Your task to perform on an android device: turn on wifi Image 0: 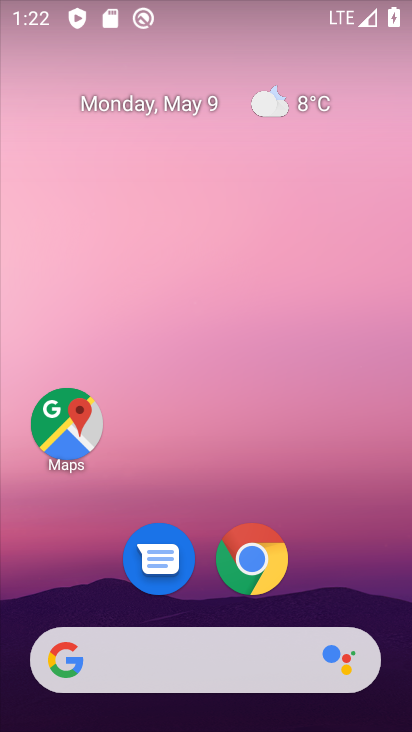
Step 0: drag from (356, 553) to (198, 34)
Your task to perform on an android device: turn on wifi Image 1: 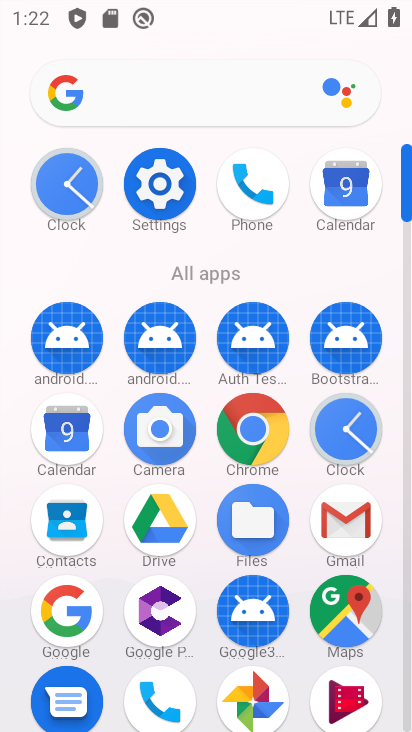
Step 1: click (161, 185)
Your task to perform on an android device: turn on wifi Image 2: 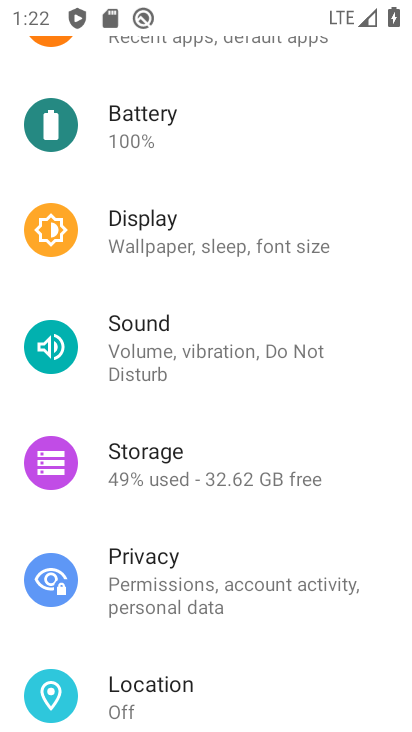
Step 2: drag from (207, 294) to (225, 648)
Your task to perform on an android device: turn on wifi Image 3: 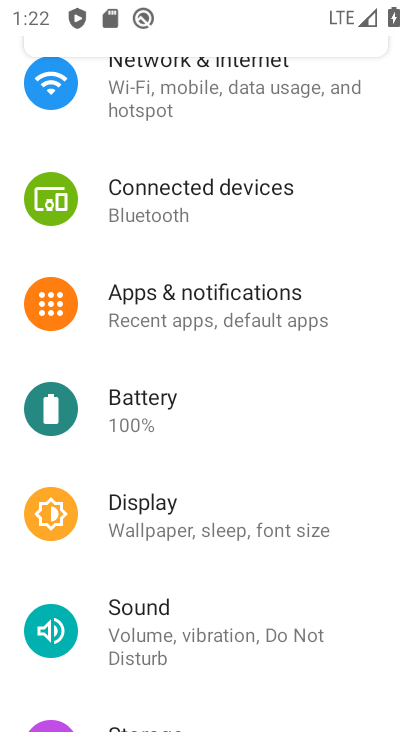
Step 3: drag from (195, 231) to (233, 587)
Your task to perform on an android device: turn on wifi Image 4: 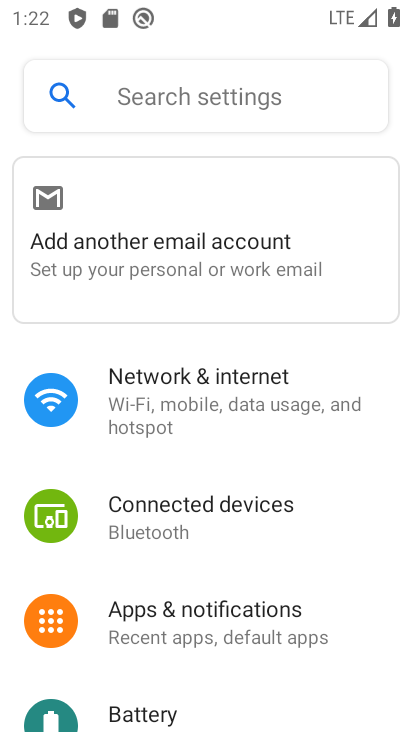
Step 4: click (167, 385)
Your task to perform on an android device: turn on wifi Image 5: 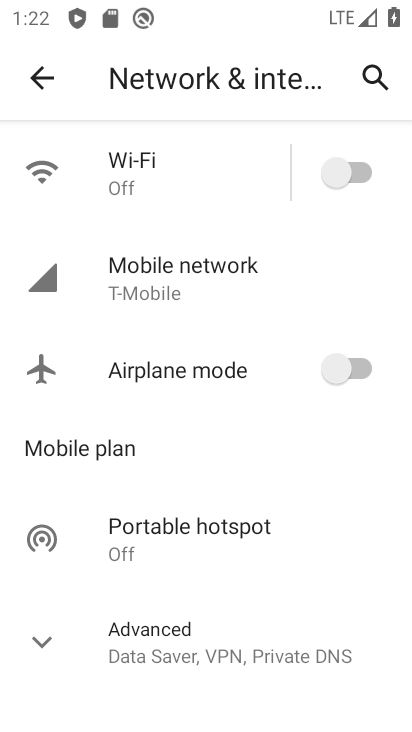
Step 5: click (335, 187)
Your task to perform on an android device: turn on wifi Image 6: 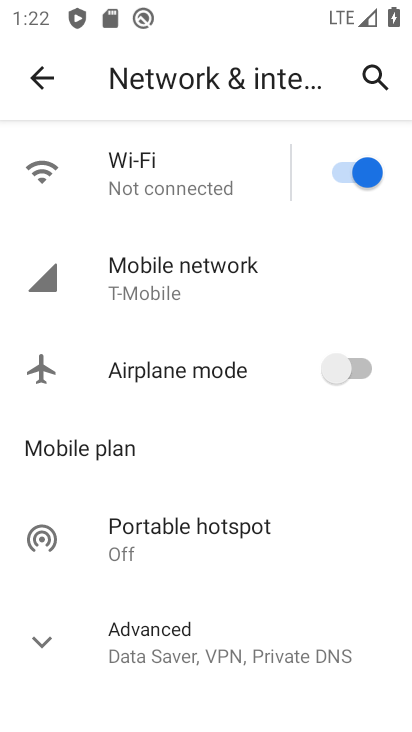
Step 6: task complete